Your task to perform on an android device: Go to battery settings Image 0: 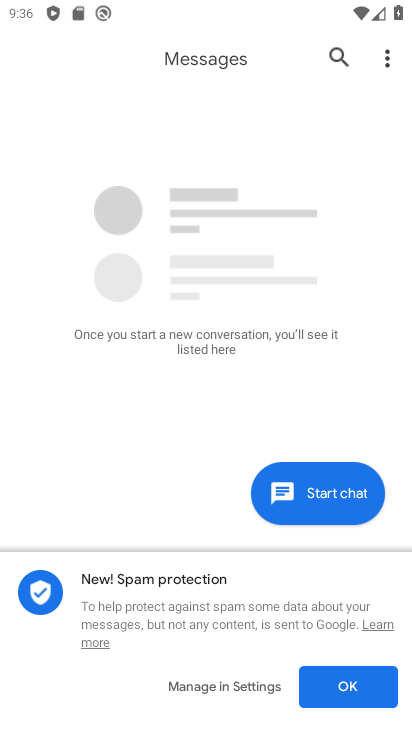
Step 0: press home button
Your task to perform on an android device: Go to battery settings Image 1: 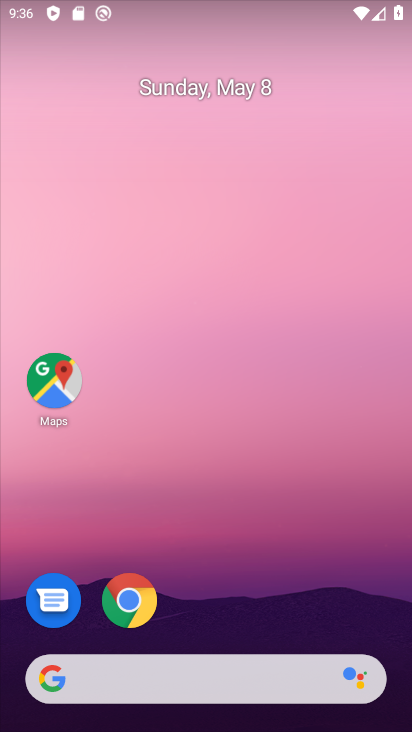
Step 1: drag from (211, 462) to (258, 115)
Your task to perform on an android device: Go to battery settings Image 2: 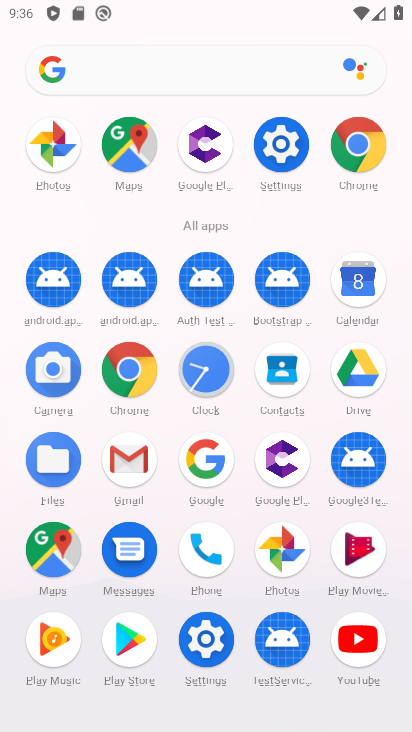
Step 2: click (305, 160)
Your task to perform on an android device: Go to battery settings Image 3: 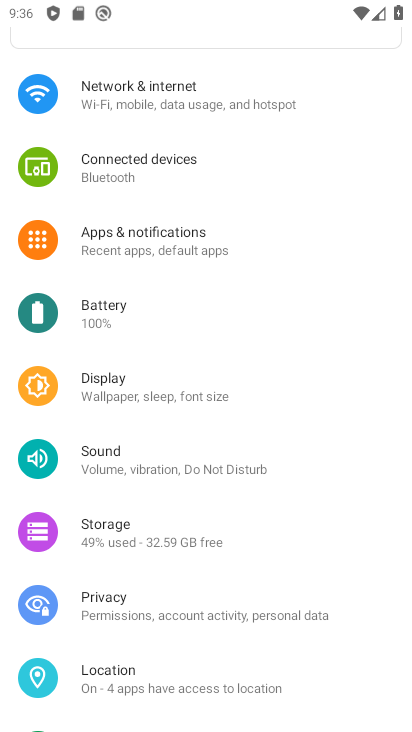
Step 3: click (175, 330)
Your task to perform on an android device: Go to battery settings Image 4: 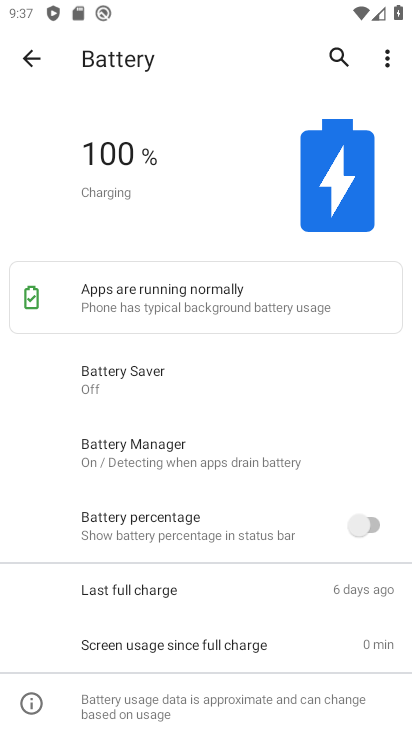
Step 4: task complete